Your task to perform on an android device: change alarm snooze length Image 0: 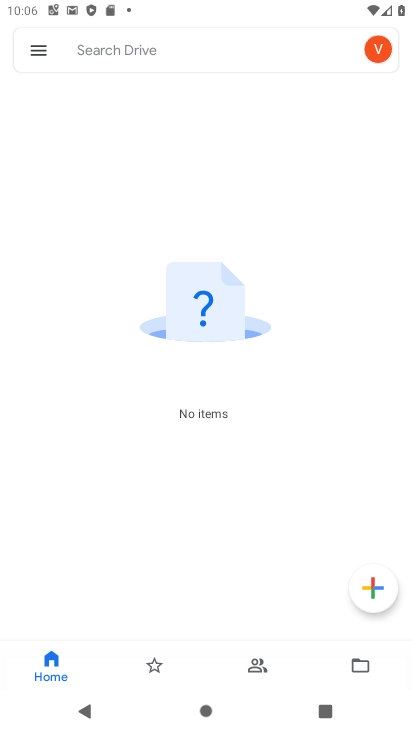
Step 0: press home button
Your task to perform on an android device: change alarm snooze length Image 1: 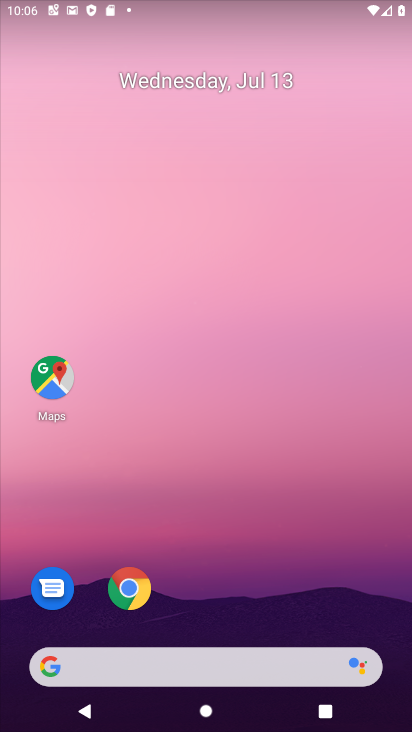
Step 1: drag from (224, 605) to (343, 43)
Your task to perform on an android device: change alarm snooze length Image 2: 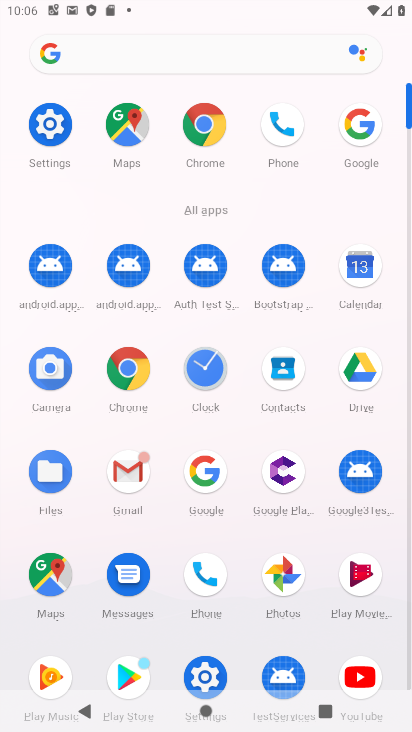
Step 2: click (200, 374)
Your task to perform on an android device: change alarm snooze length Image 3: 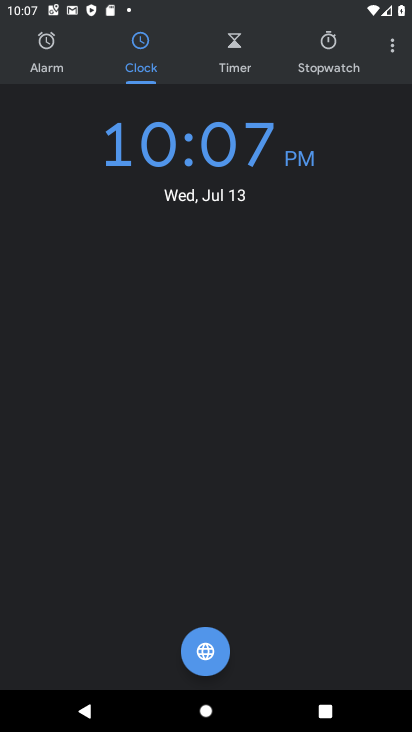
Step 3: click (390, 39)
Your task to perform on an android device: change alarm snooze length Image 4: 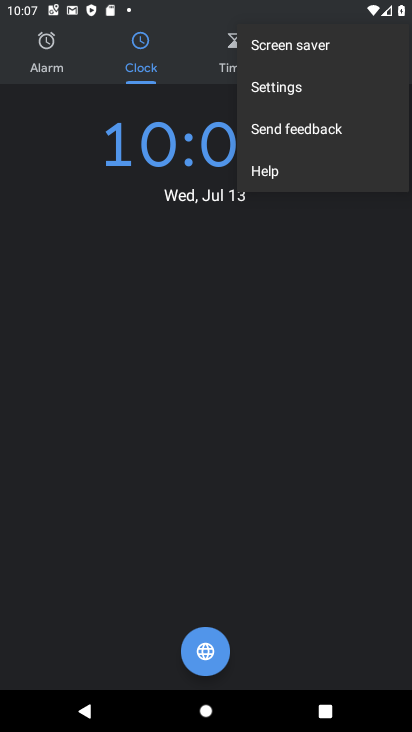
Step 4: click (286, 91)
Your task to perform on an android device: change alarm snooze length Image 5: 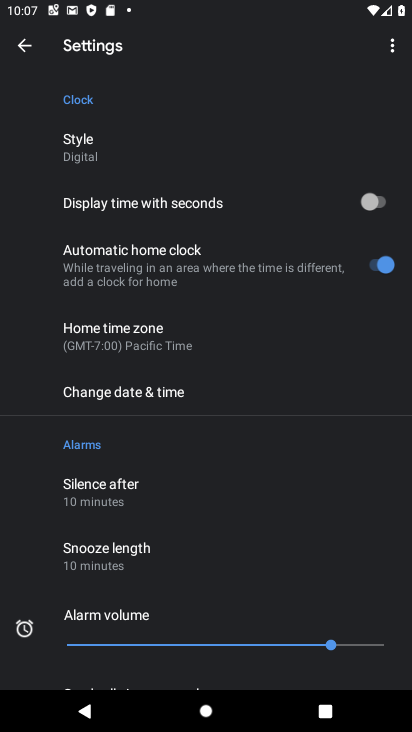
Step 5: click (128, 490)
Your task to perform on an android device: change alarm snooze length Image 6: 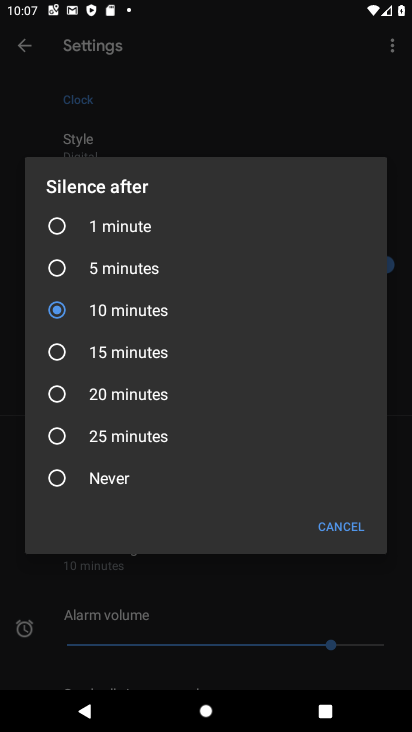
Step 6: click (354, 532)
Your task to perform on an android device: change alarm snooze length Image 7: 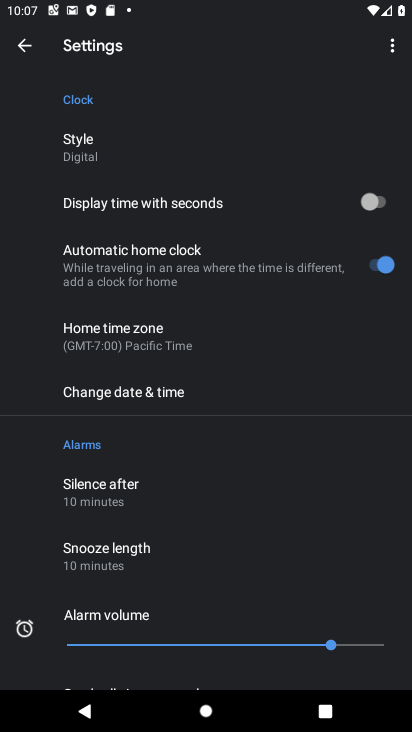
Step 7: click (191, 544)
Your task to perform on an android device: change alarm snooze length Image 8: 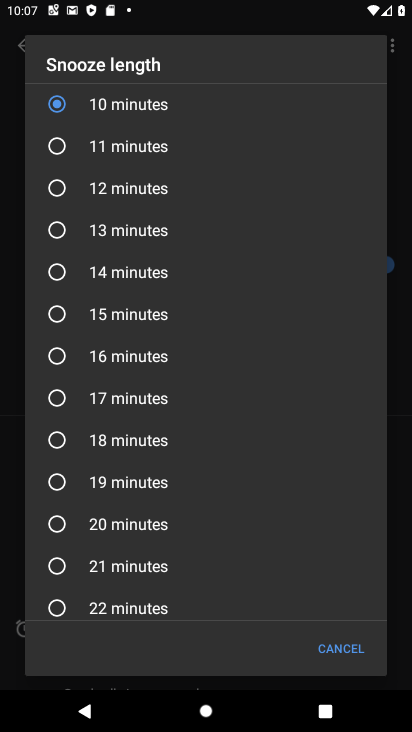
Step 8: click (133, 136)
Your task to perform on an android device: change alarm snooze length Image 9: 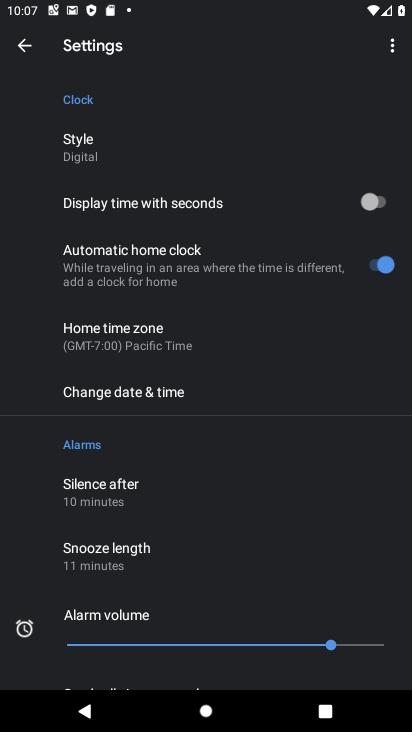
Step 9: task complete